Your task to perform on an android device: Show the shopping cart on amazon.com. Search for razer naga on amazon.com, select the first entry, add it to the cart, then select checkout. Image 0: 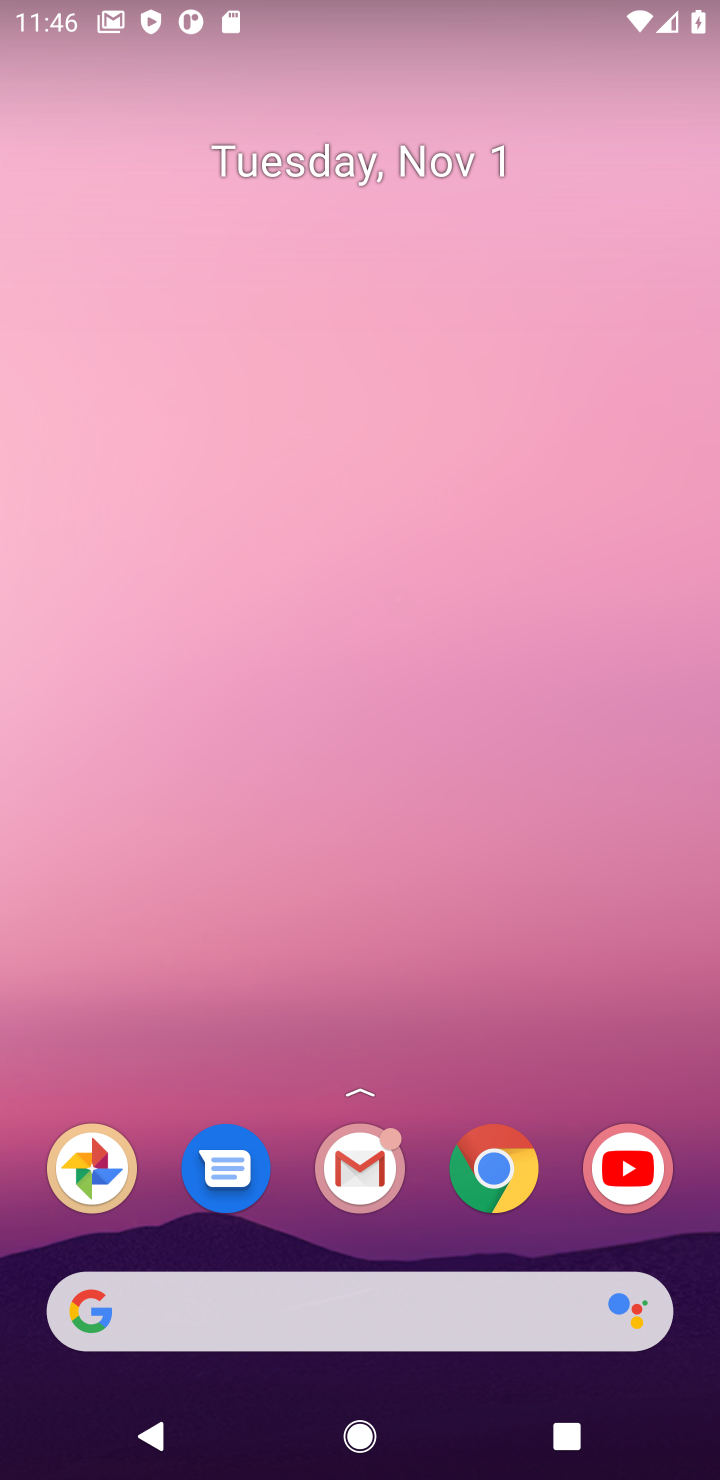
Step 0: click (490, 1165)
Your task to perform on an android device: Show the shopping cart on amazon.com. Search for razer naga on amazon.com, select the first entry, add it to the cart, then select checkout. Image 1: 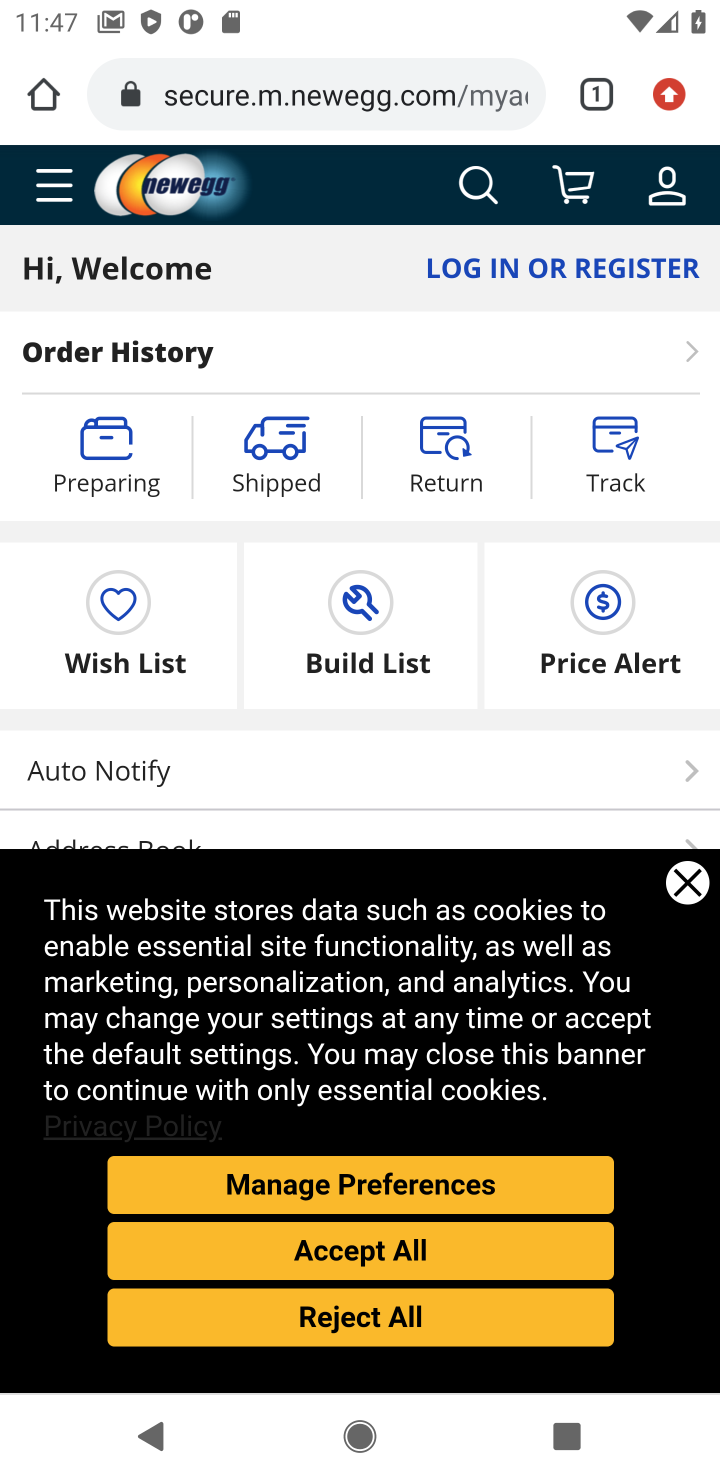
Step 1: click (450, 85)
Your task to perform on an android device: Show the shopping cart on amazon.com. Search for razer naga on amazon.com, select the first entry, add it to the cart, then select checkout. Image 2: 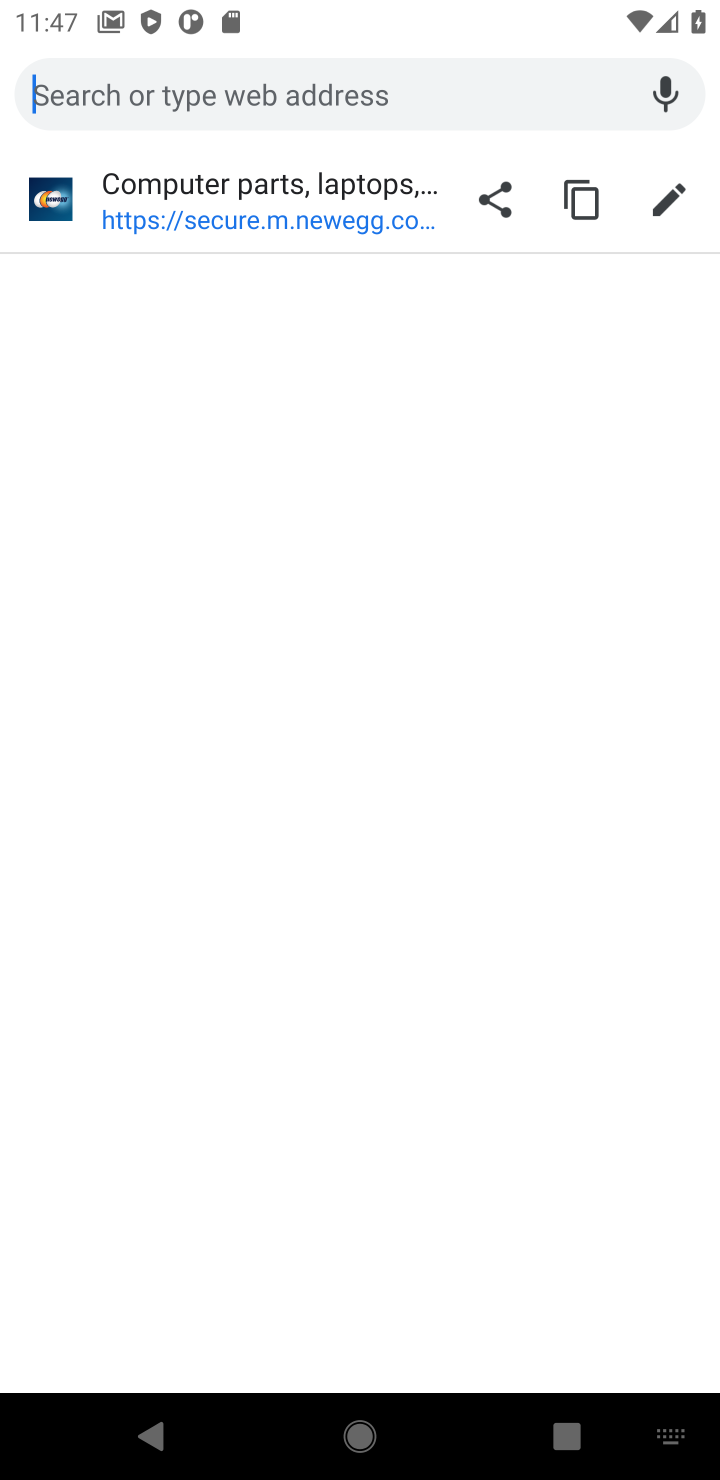
Step 2: type " amazon.com"
Your task to perform on an android device: Show the shopping cart on amazon.com. Search for razer naga on amazon.com, select the first entry, add it to the cart, then select checkout. Image 3: 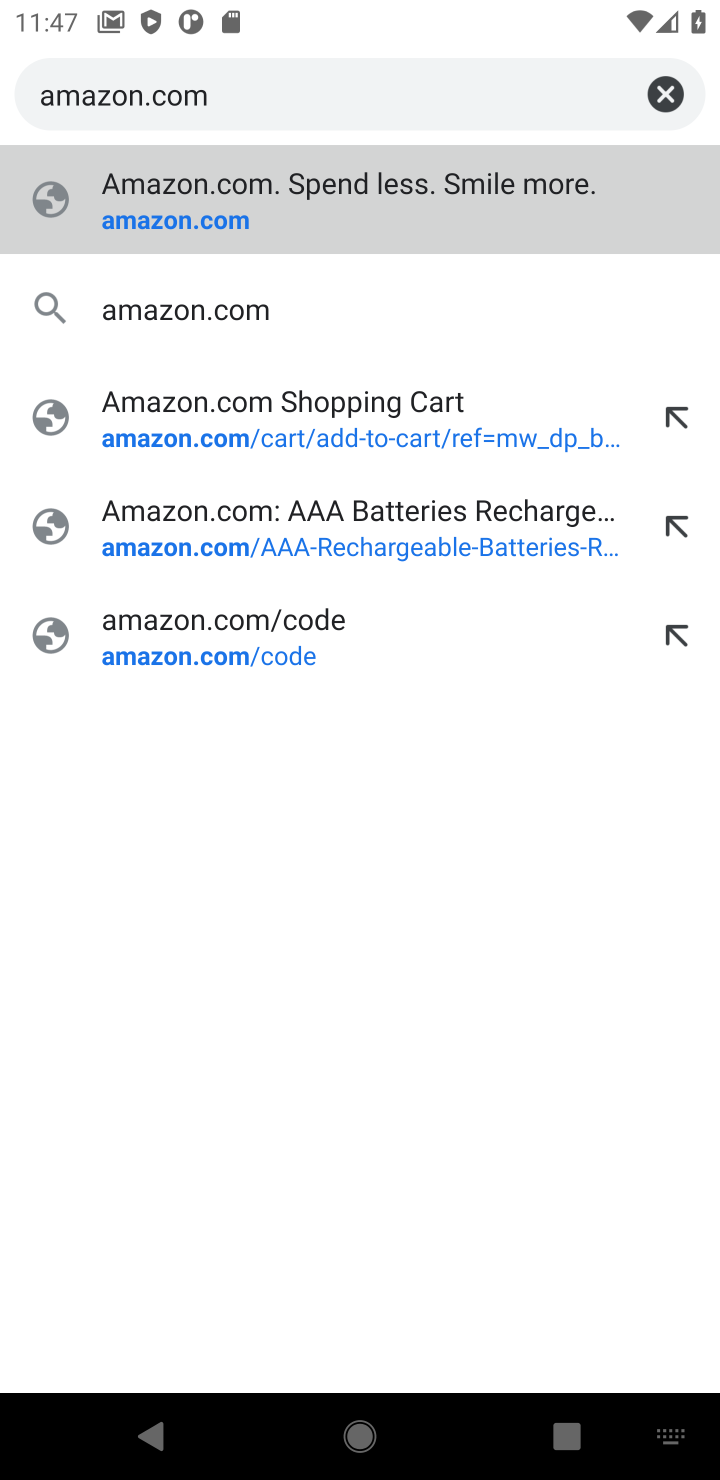
Step 3: press enter
Your task to perform on an android device: Show the shopping cart on amazon.com. Search for razer naga on amazon.com, select the first entry, add it to the cart, then select checkout. Image 4: 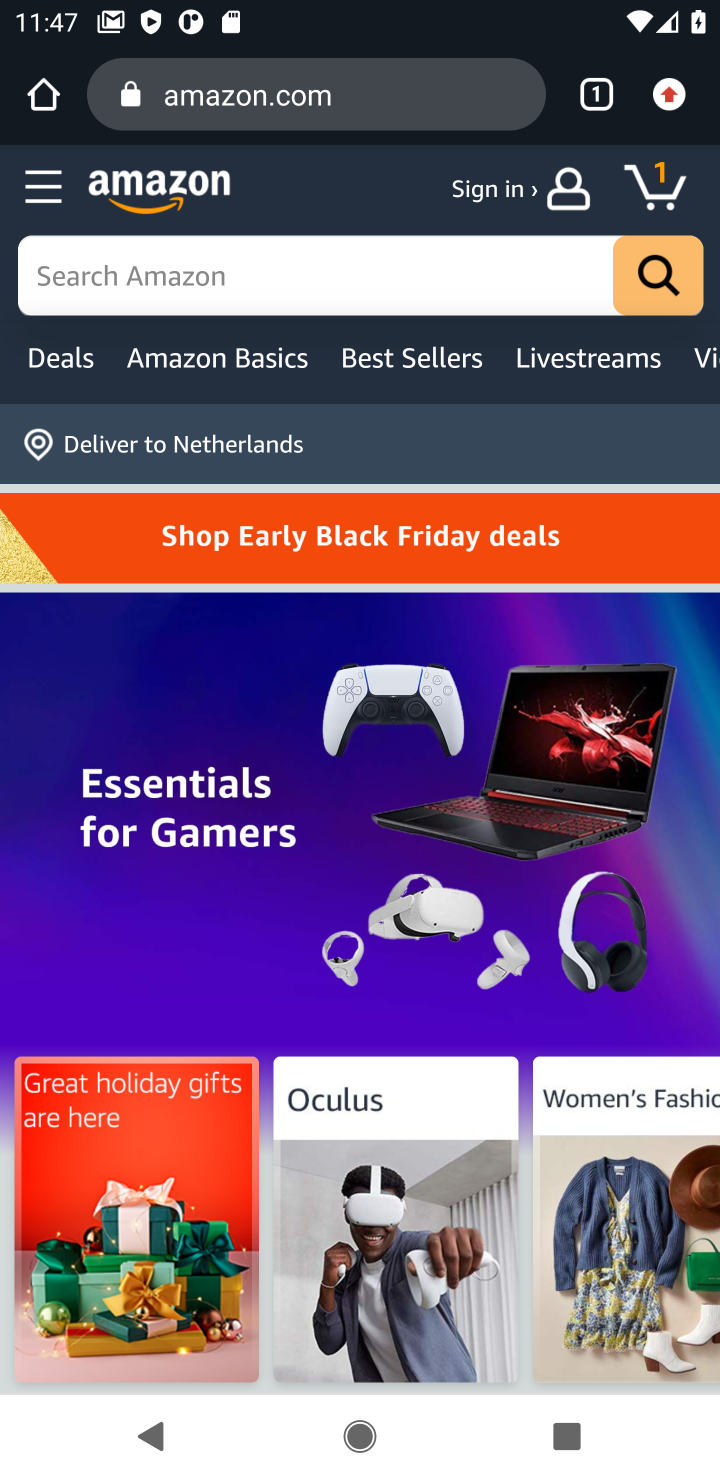
Step 4: click (207, 270)
Your task to perform on an android device: Show the shopping cart on amazon.com. Search for razer naga on amazon.com, select the first entry, add it to the cart, then select checkout. Image 5: 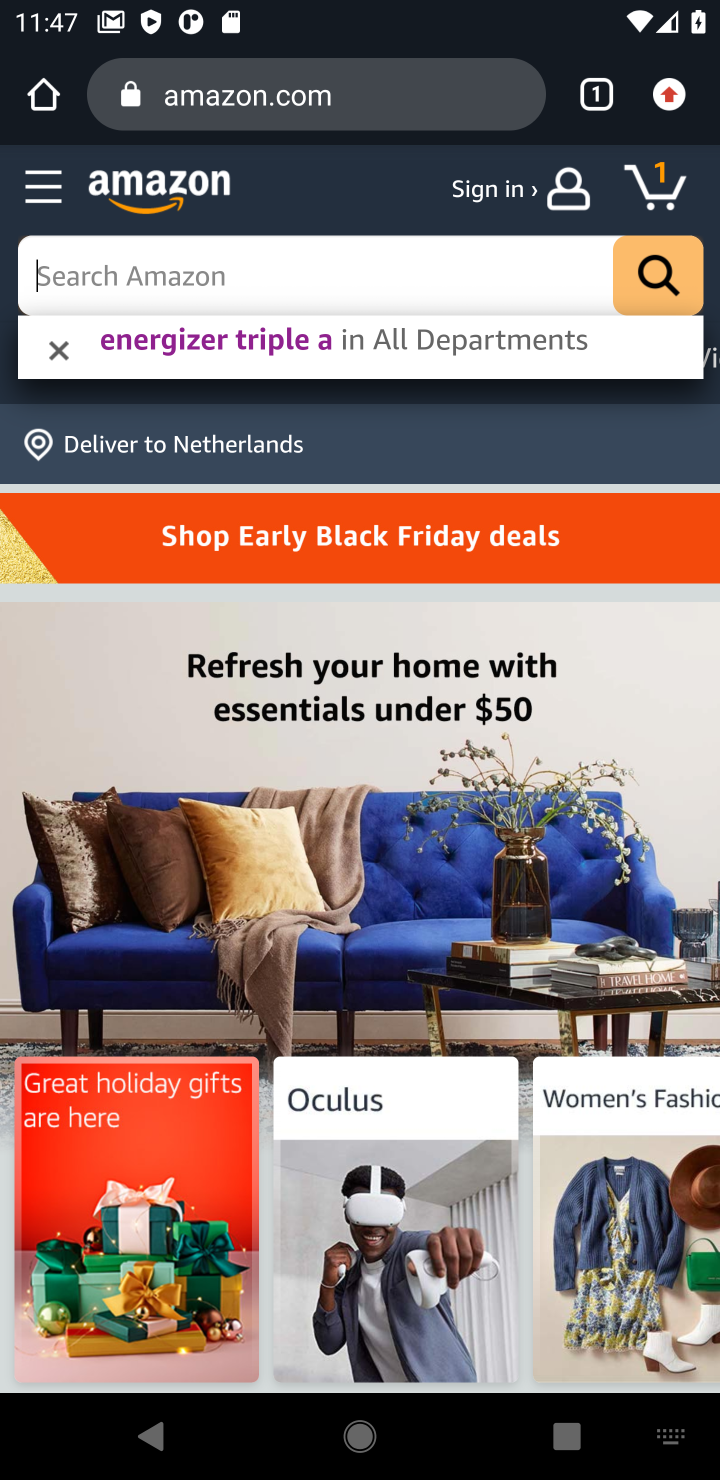
Step 5: type "razer naga"
Your task to perform on an android device: Show the shopping cart on amazon.com. Search for razer naga on amazon.com, select the first entry, add it to the cart, then select checkout. Image 6: 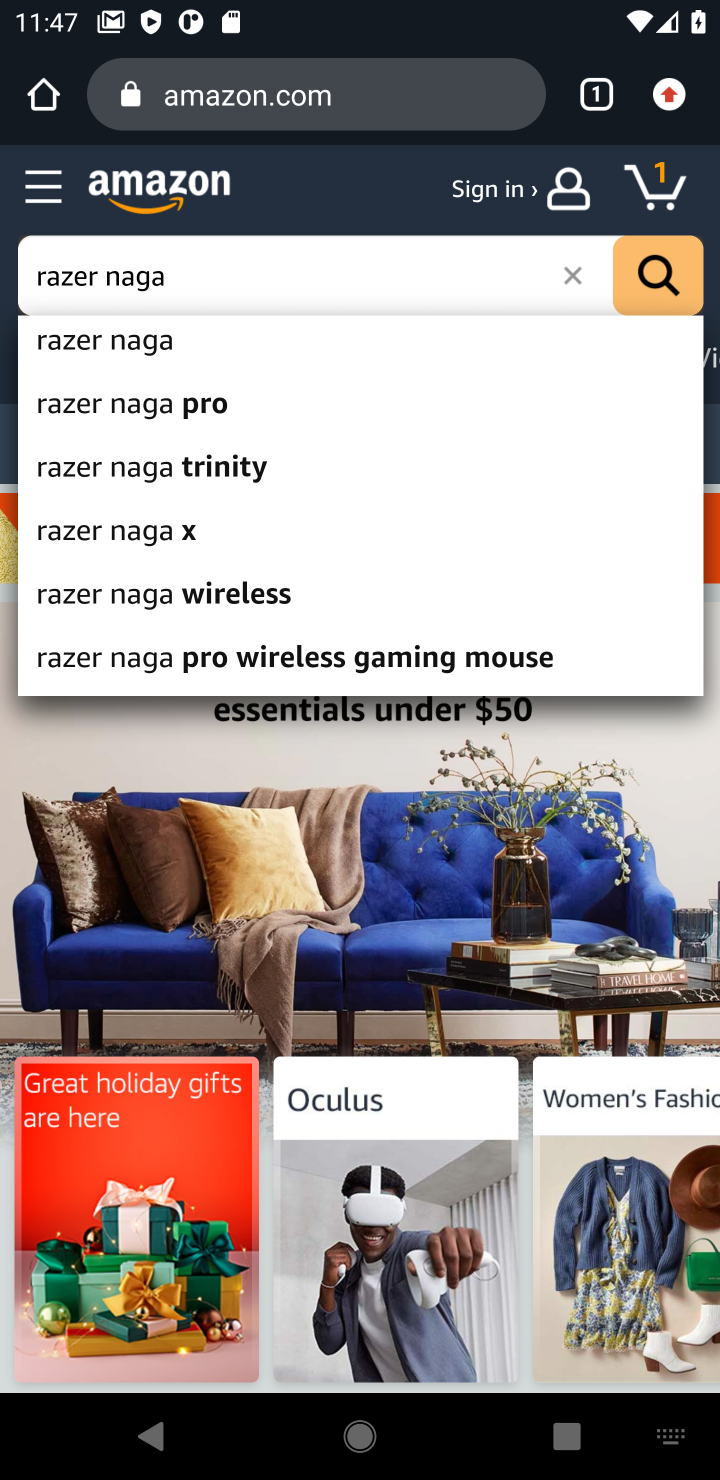
Step 6: click (145, 329)
Your task to perform on an android device: Show the shopping cart on amazon.com. Search for razer naga on amazon.com, select the first entry, add it to the cart, then select checkout. Image 7: 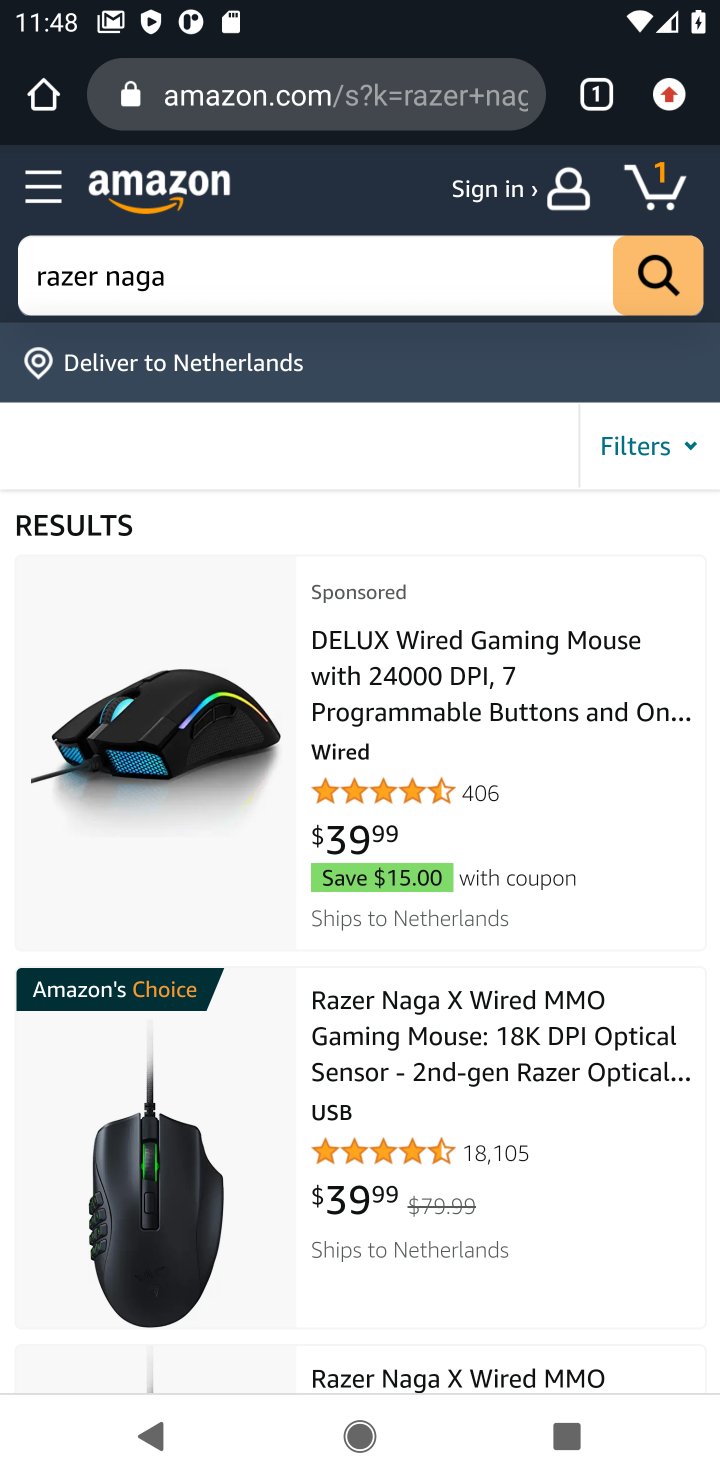
Step 7: click (181, 1111)
Your task to perform on an android device: Show the shopping cart on amazon.com. Search for razer naga on amazon.com, select the first entry, add it to the cart, then select checkout. Image 8: 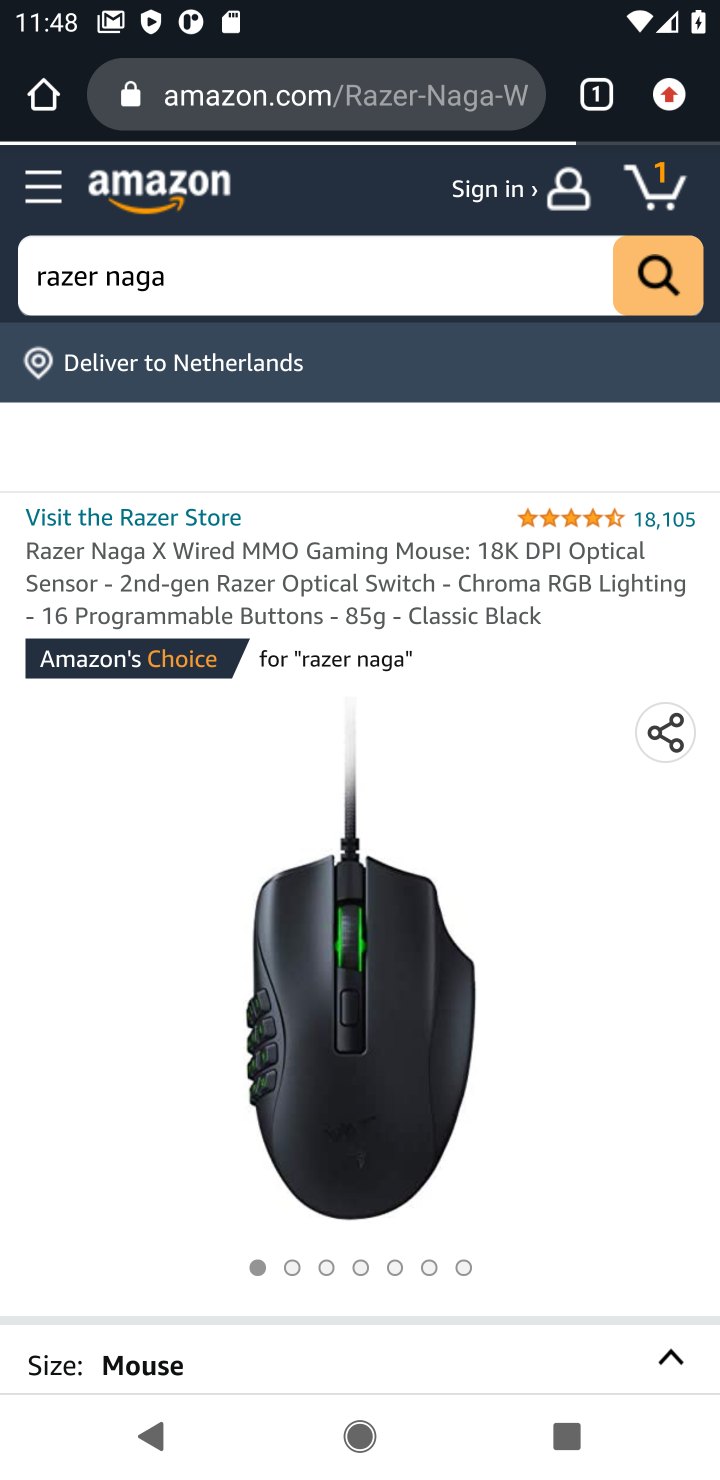
Step 8: drag from (439, 960) to (572, 488)
Your task to perform on an android device: Show the shopping cart on amazon.com. Search for razer naga on amazon.com, select the first entry, add it to the cart, then select checkout. Image 9: 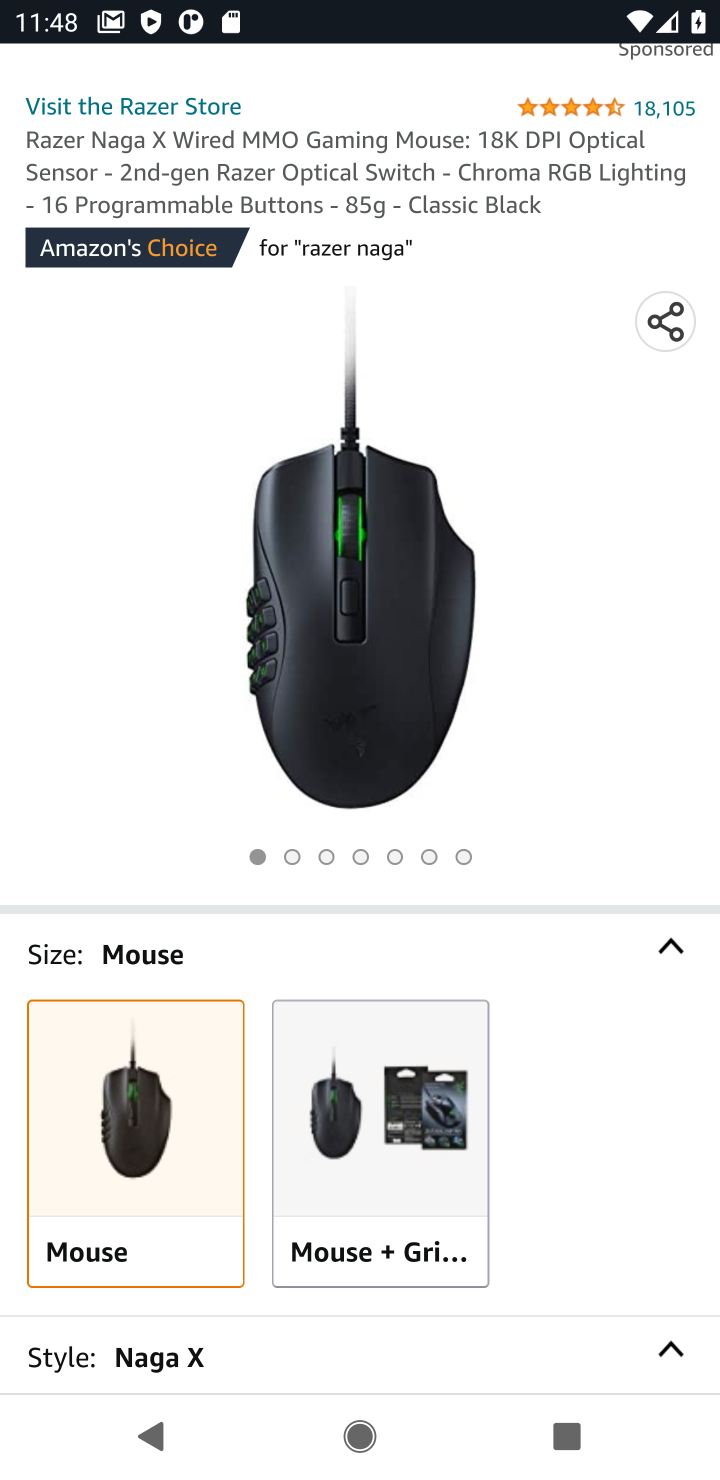
Step 9: drag from (588, 908) to (580, 604)
Your task to perform on an android device: Show the shopping cart on amazon.com. Search for razer naga on amazon.com, select the first entry, add it to the cart, then select checkout. Image 10: 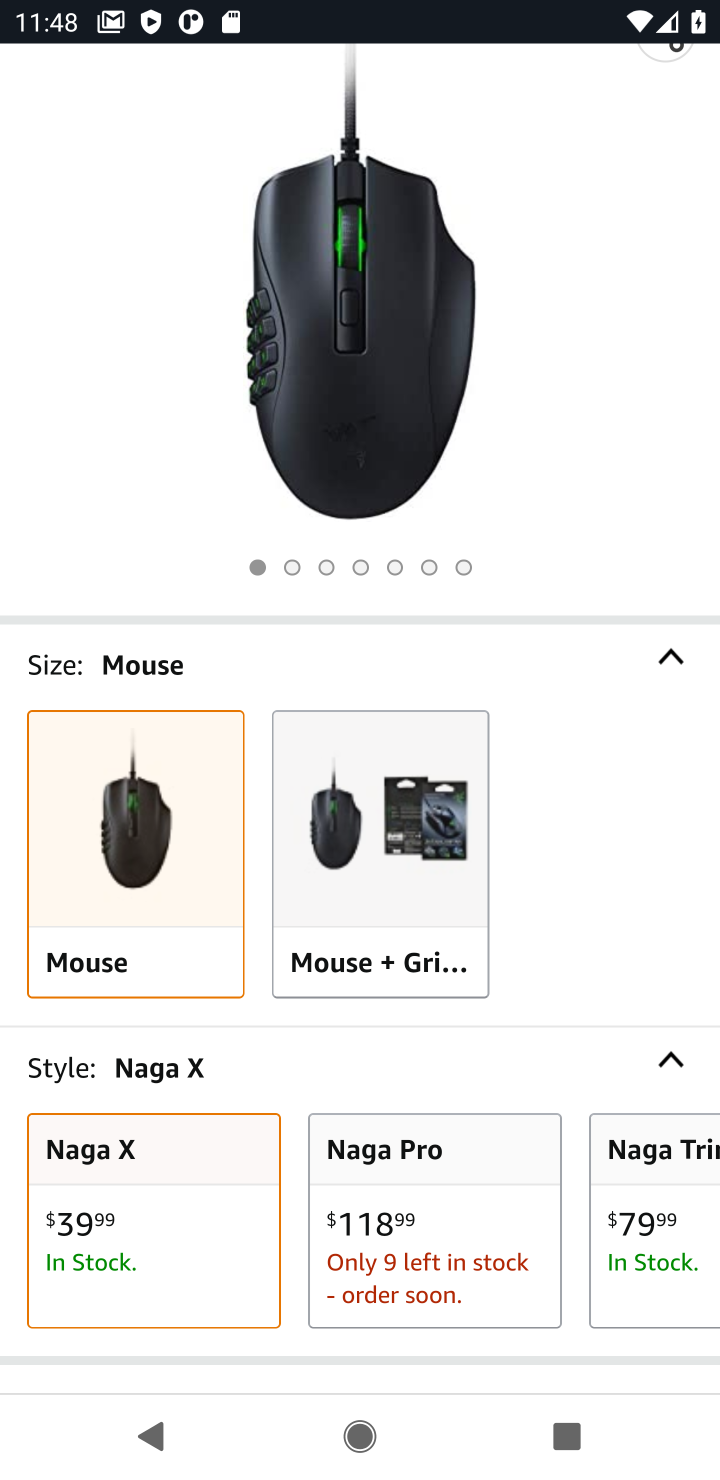
Step 10: drag from (557, 959) to (536, 589)
Your task to perform on an android device: Show the shopping cart on amazon.com. Search for razer naga on amazon.com, select the first entry, add it to the cart, then select checkout. Image 11: 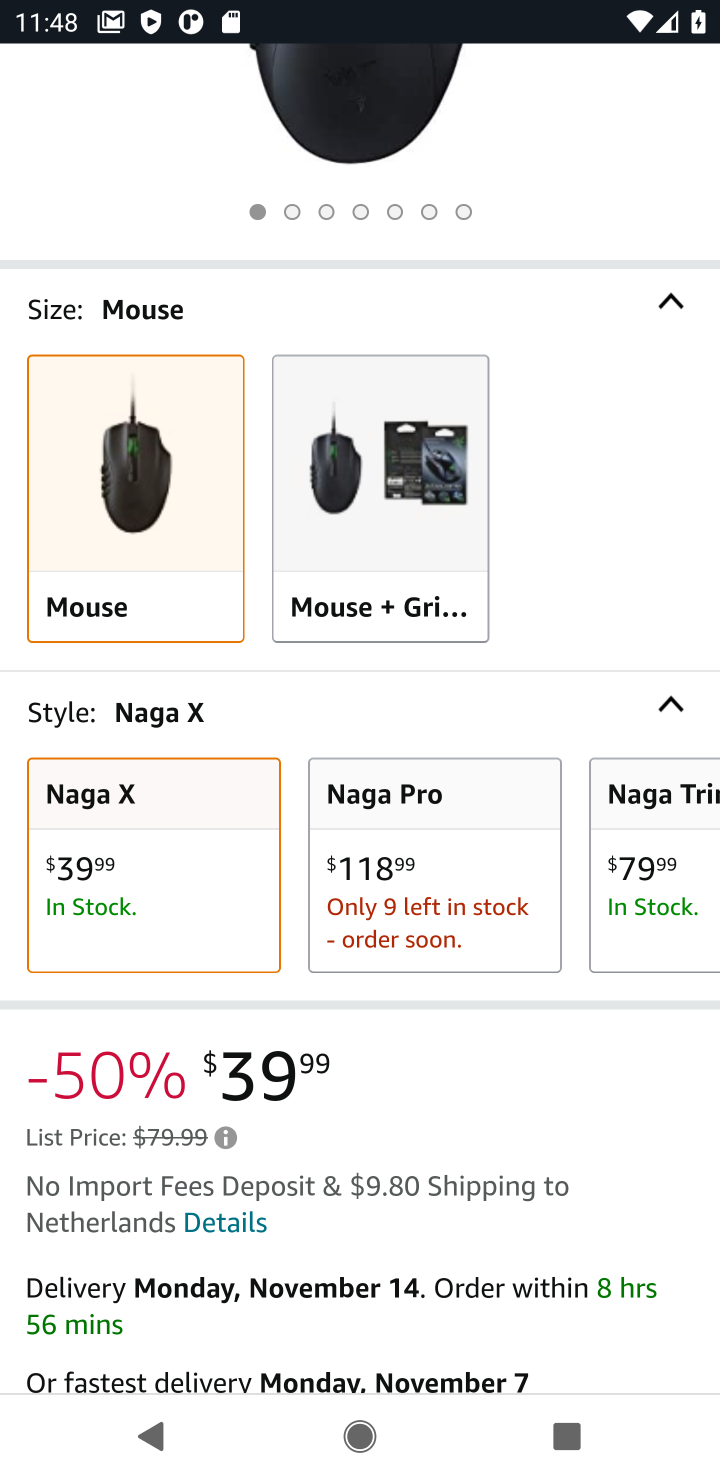
Step 11: drag from (590, 1257) to (504, 719)
Your task to perform on an android device: Show the shopping cart on amazon.com. Search for razer naga on amazon.com, select the first entry, add it to the cart, then select checkout. Image 12: 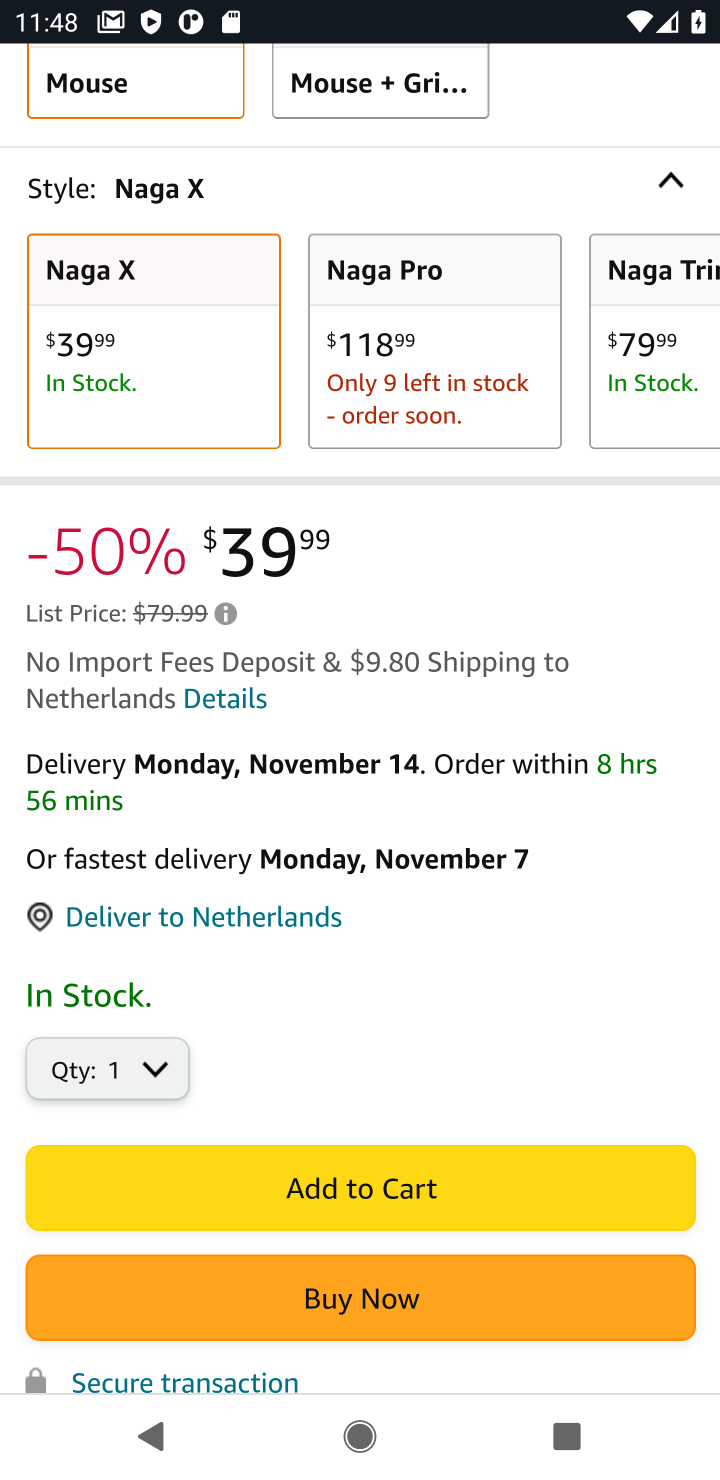
Step 12: click (489, 1182)
Your task to perform on an android device: Show the shopping cart on amazon.com. Search for razer naga on amazon.com, select the first entry, add it to the cart, then select checkout. Image 13: 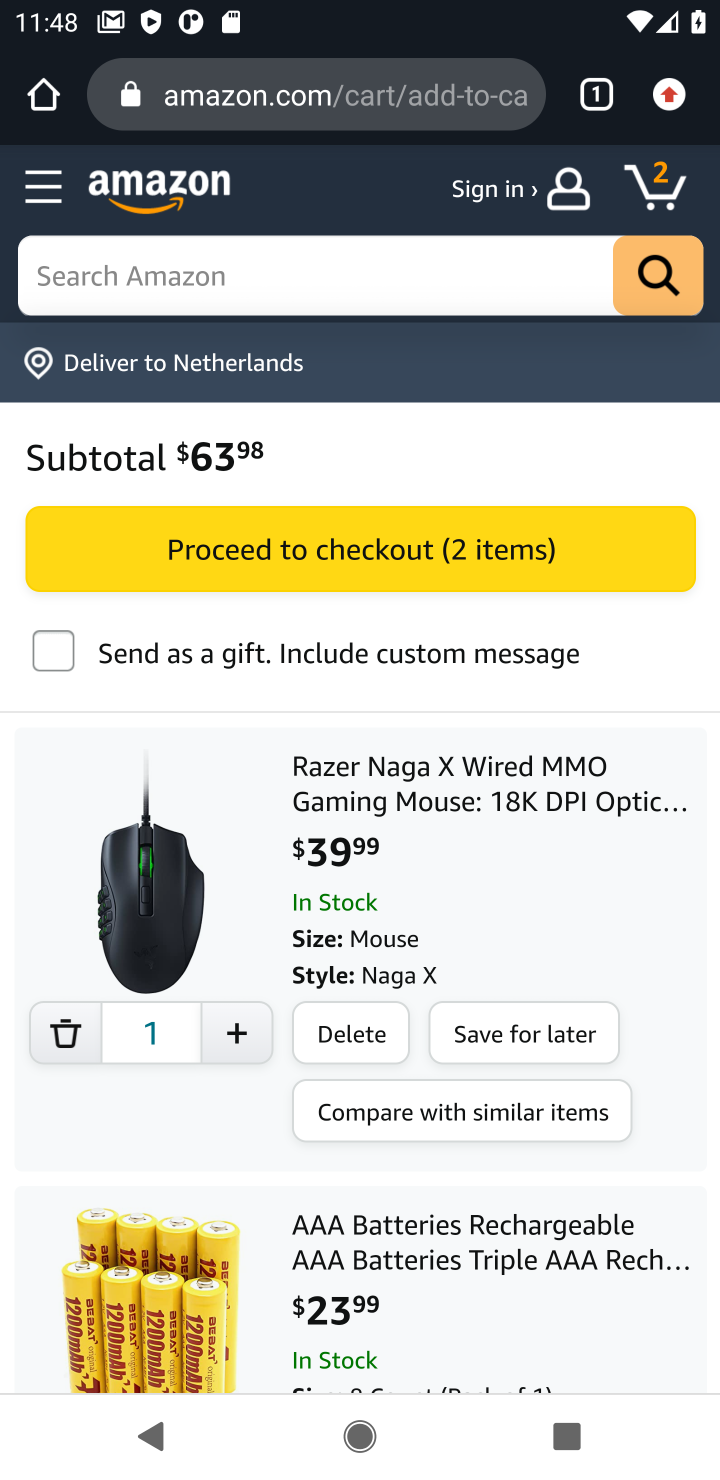
Step 13: click (416, 542)
Your task to perform on an android device: Show the shopping cart on amazon.com. Search for razer naga on amazon.com, select the first entry, add it to the cart, then select checkout. Image 14: 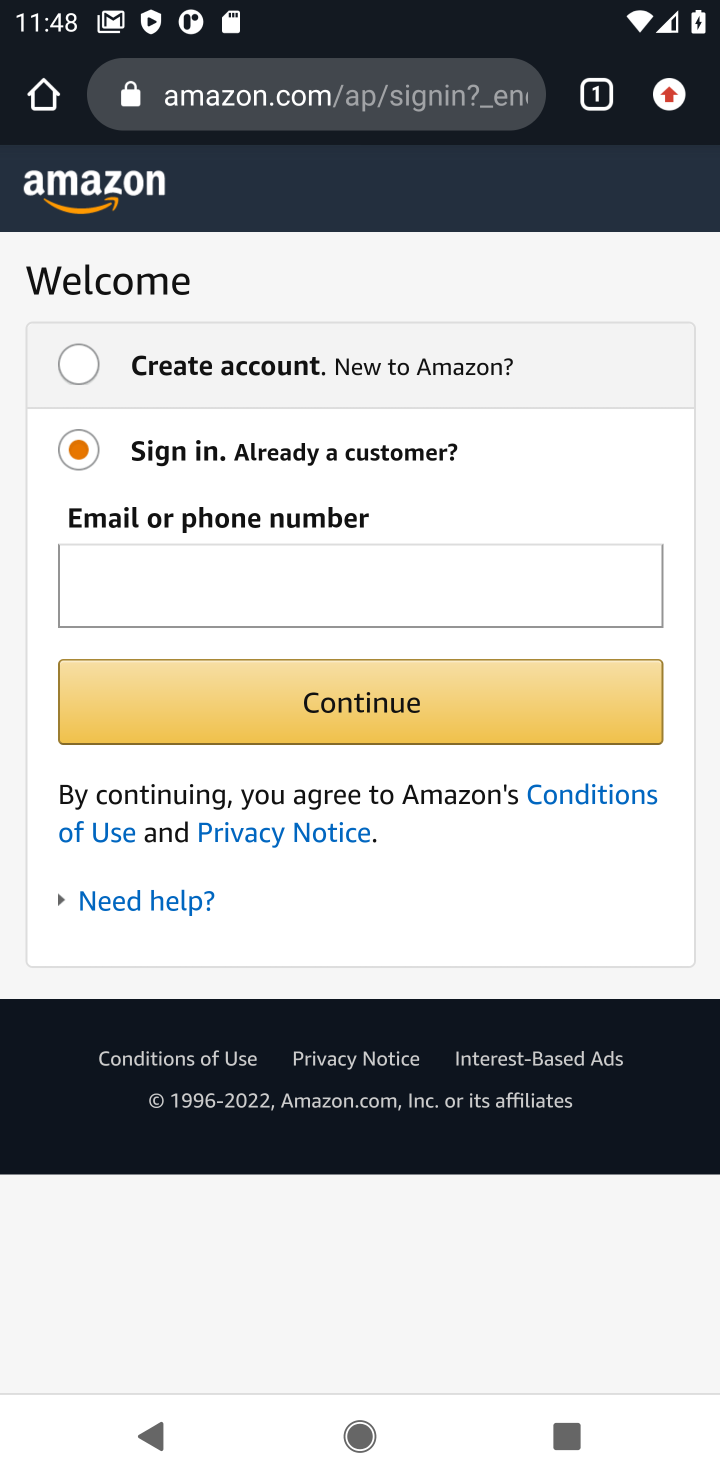
Step 14: task complete